Your task to perform on an android device: turn pop-ups on in chrome Image 0: 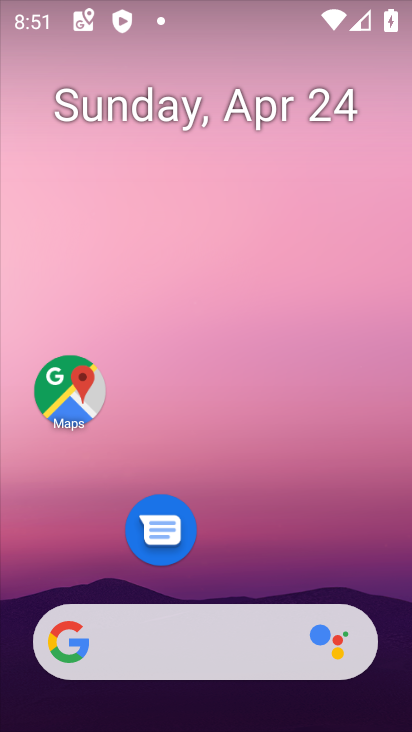
Step 0: drag from (235, 498) to (220, 162)
Your task to perform on an android device: turn pop-ups on in chrome Image 1: 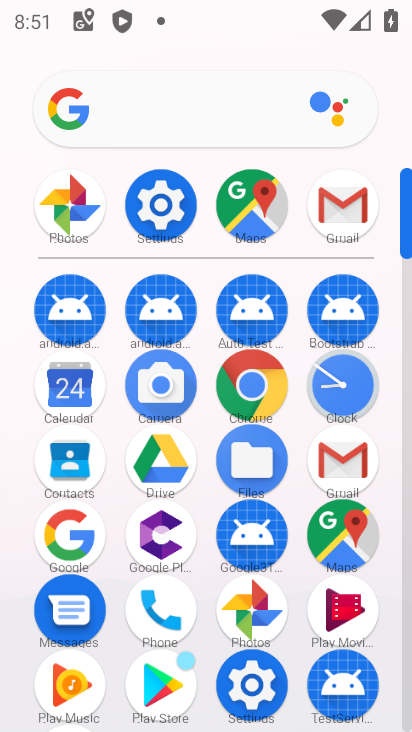
Step 1: drag from (244, 379) to (225, 462)
Your task to perform on an android device: turn pop-ups on in chrome Image 2: 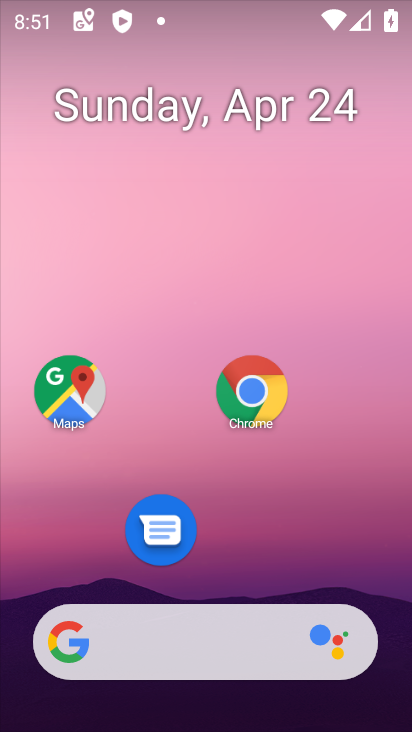
Step 2: click (263, 391)
Your task to perform on an android device: turn pop-ups on in chrome Image 3: 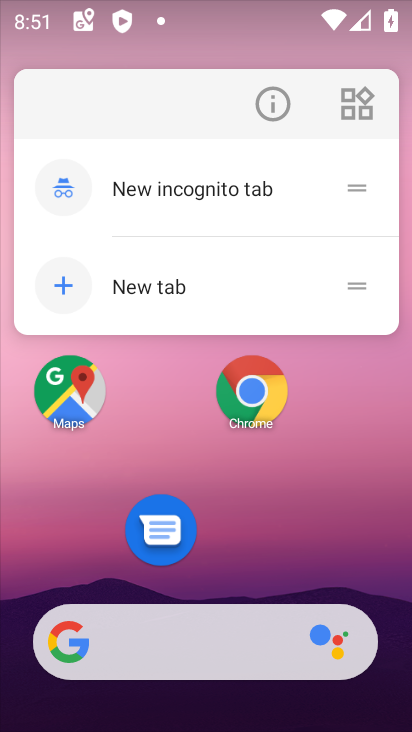
Step 3: click (276, 294)
Your task to perform on an android device: turn pop-ups on in chrome Image 4: 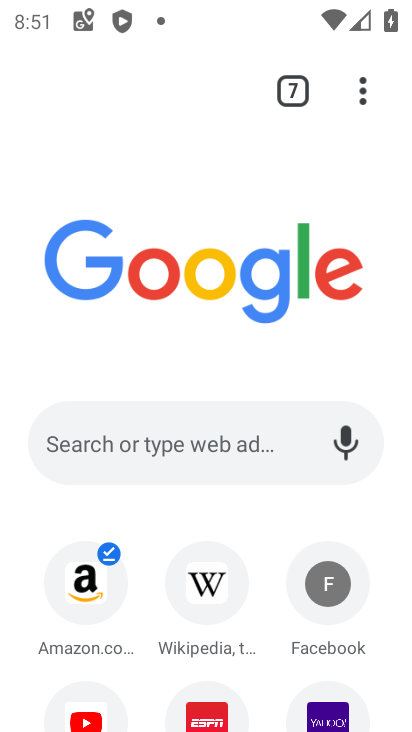
Step 4: click (356, 100)
Your task to perform on an android device: turn pop-ups on in chrome Image 5: 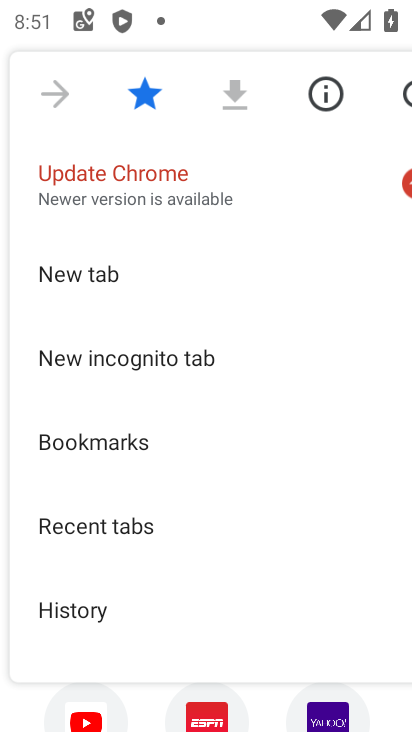
Step 5: drag from (206, 593) to (231, 70)
Your task to perform on an android device: turn pop-ups on in chrome Image 6: 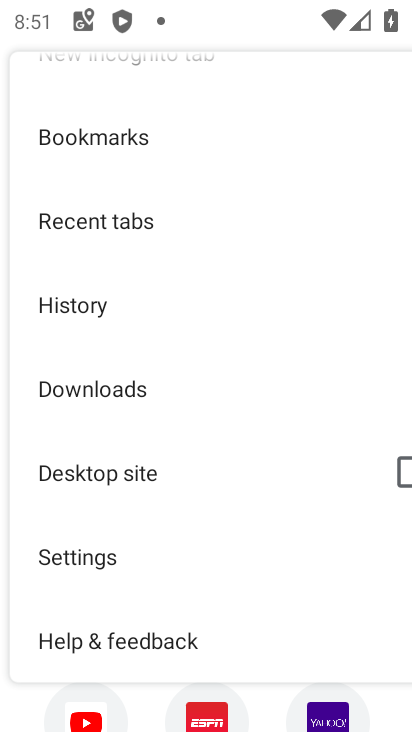
Step 6: click (71, 584)
Your task to perform on an android device: turn pop-ups on in chrome Image 7: 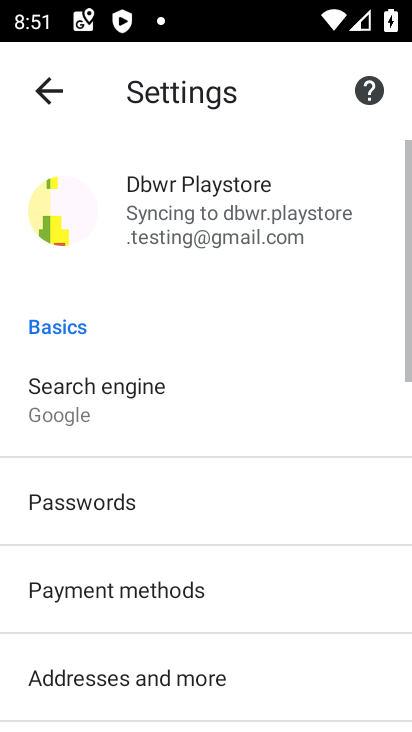
Step 7: drag from (71, 584) to (160, 111)
Your task to perform on an android device: turn pop-ups on in chrome Image 8: 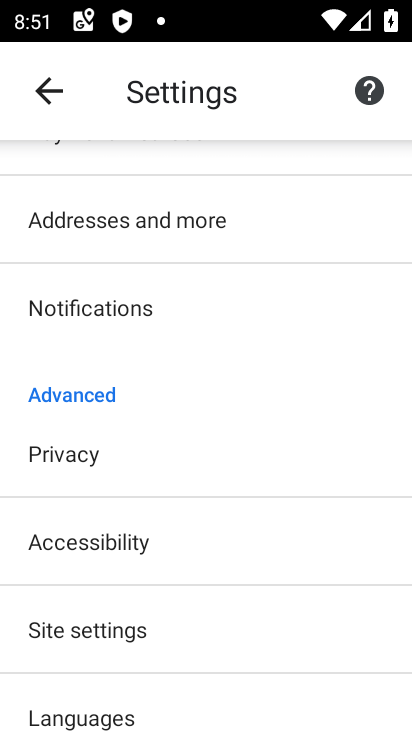
Step 8: click (98, 651)
Your task to perform on an android device: turn pop-ups on in chrome Image 9: 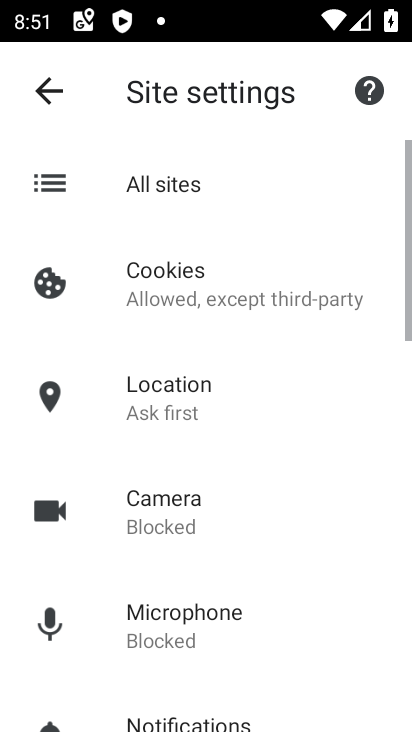
Step 9: drag from (98, 651) to (165, 176)
Your task to perform on an android device: turn pop-ups on in chrome Image 10: 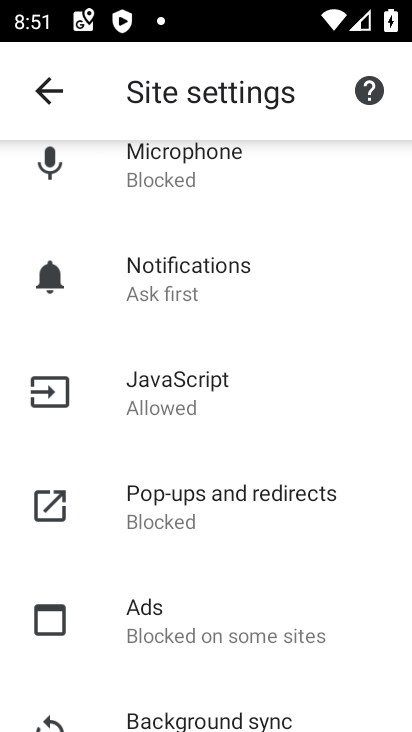
Step 10: click (199, 493)
Your task to perform on an android device: turn pop-ups on in chrome Image 11: 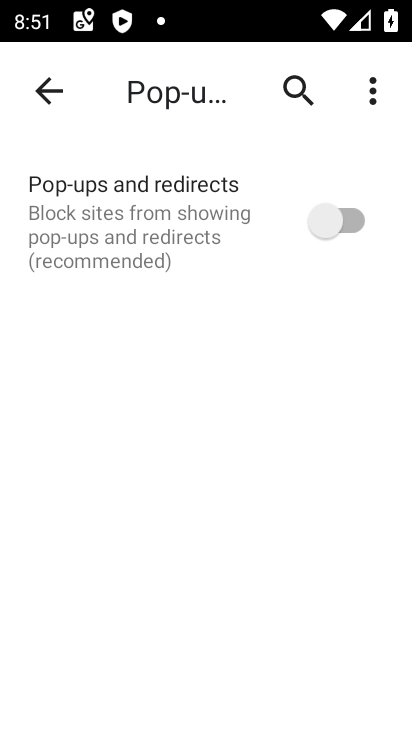
Step 11: click (361, 224)
Your task to perform on an android device: turn pop-ups on in chrome Image 12: 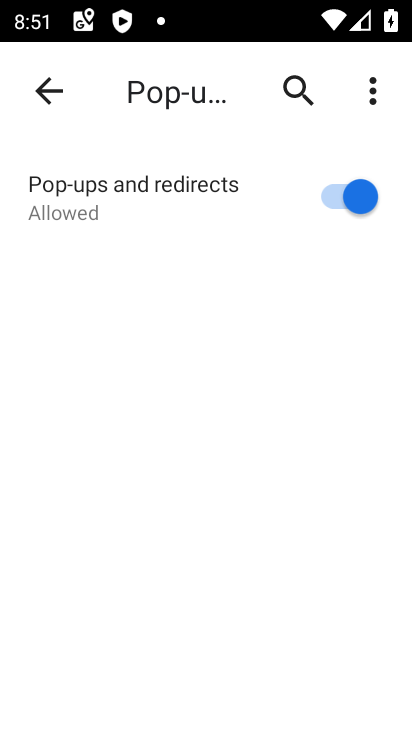
Step 12: task complete